Your task to perform on an android device: Search for the new Air Jordan 13 on Nike.com Image 0: 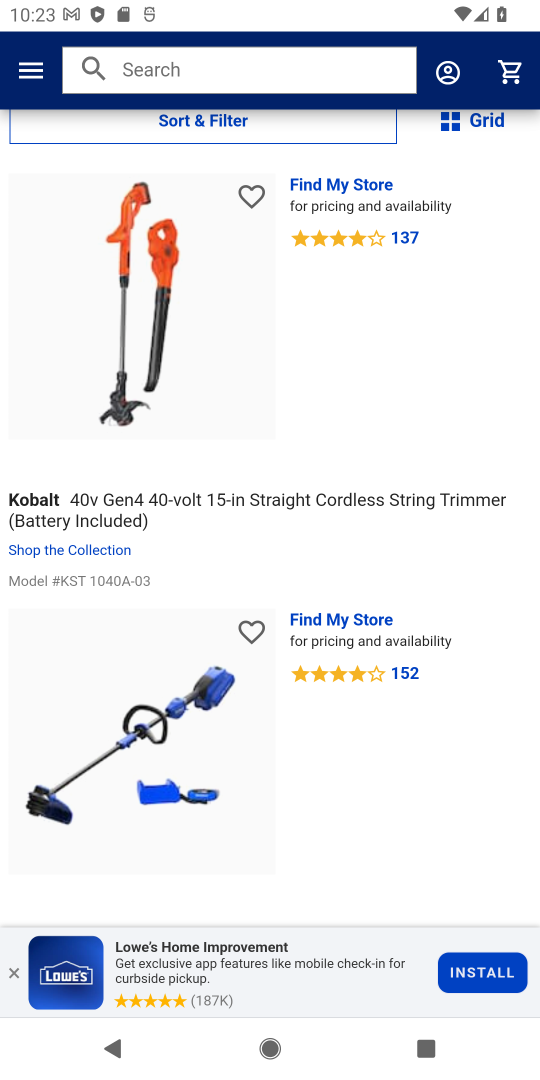
Step 0: press home button
Your task to perform on an android device: Search for the new Air Jordan 13 on Nike.com Image 1: 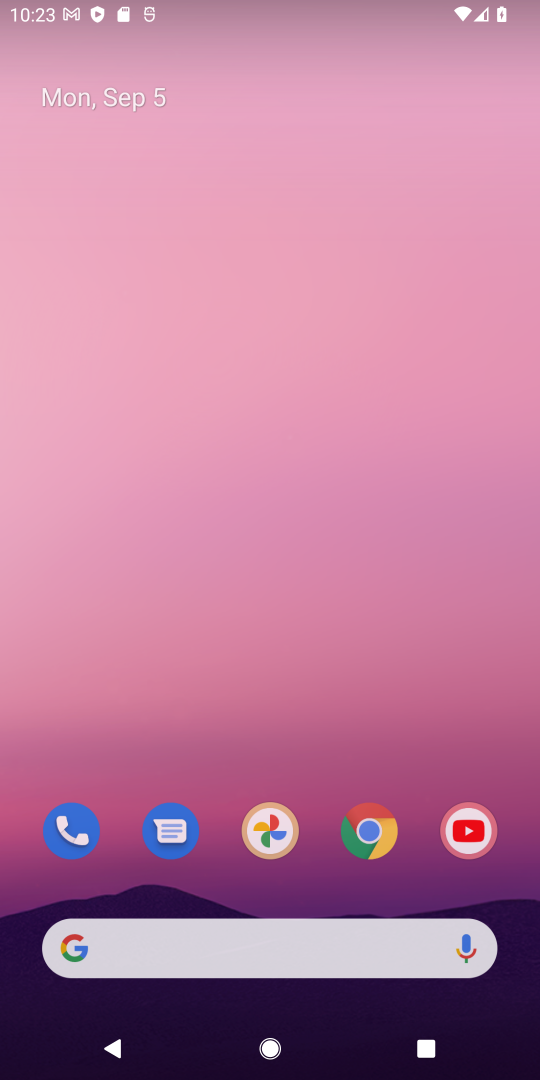
Step 1: drag from (282, 855) to (213, 223)
Your task to perform on an android device: Search for the new Air Jordan 13 on Nike.com Image 2: 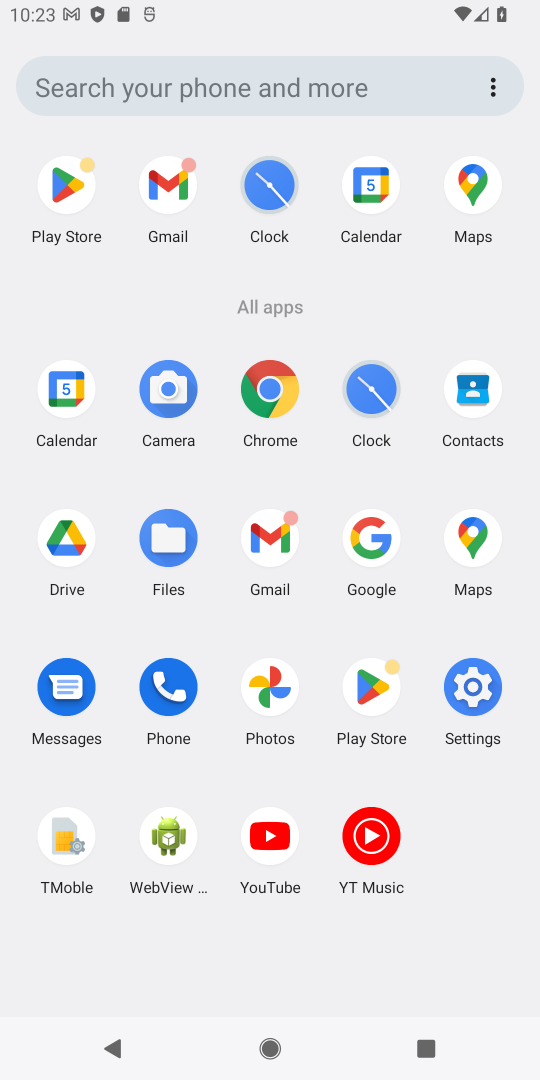
Step 2: click (256, 387)
Your task to perform on an android device: Search for the new Air Jordan 13 on Nike.com Image 3: 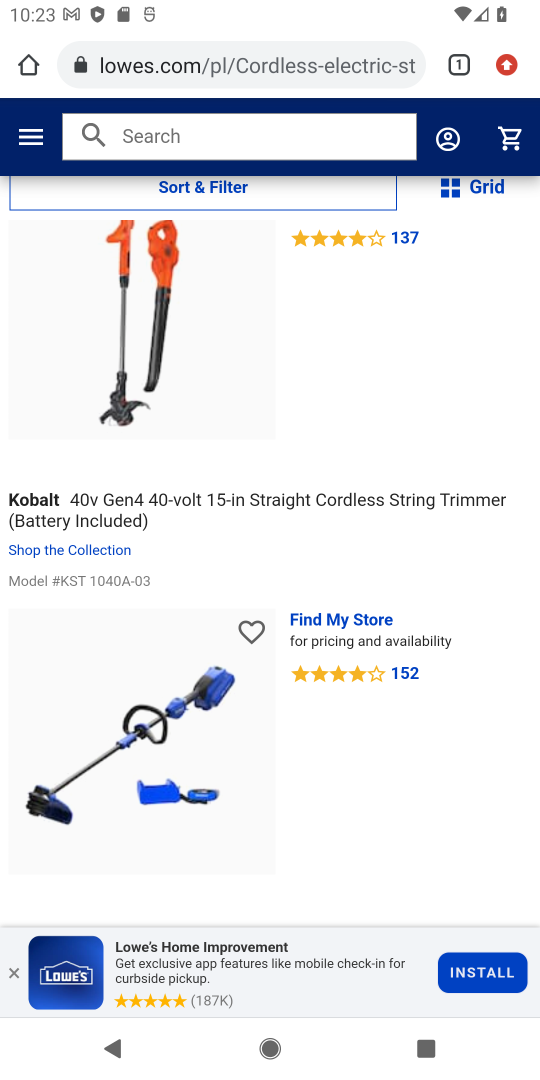
Step 3: click (141, 54)
Your task to perform on an android device: Search for the new Air Jordan 13 on Nike.com Image 4: 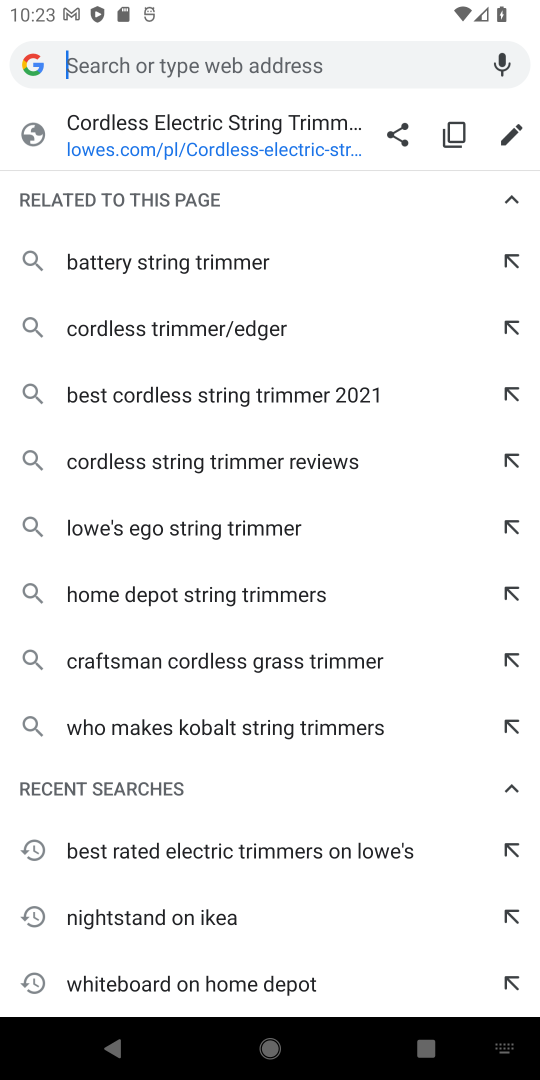
Step 4: type "new Air Jordan 13 on Nike.com"
Your task to perform on an android device: Search for the new Air Jordan 13 on Nike.com Image 5: 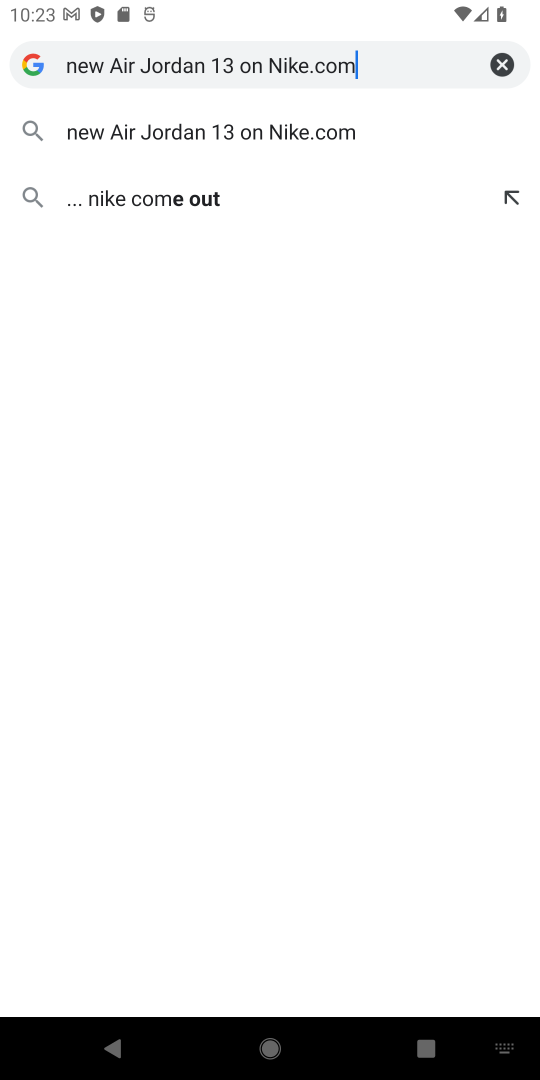
Step 5: click (225, 127)
Your task to perform on an android device: Search for the new Air Jordan 13 on Nike.com Image 6: 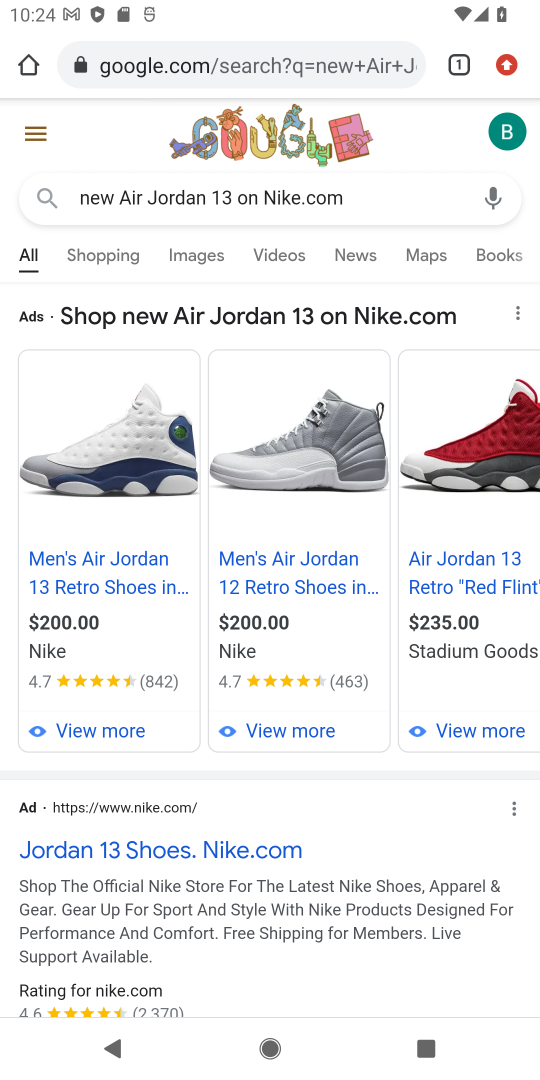
Step 6: click (144, 850)
Your task to perform on an android device: Search for the new Air Jordan 13 on Nike.com Image 7: 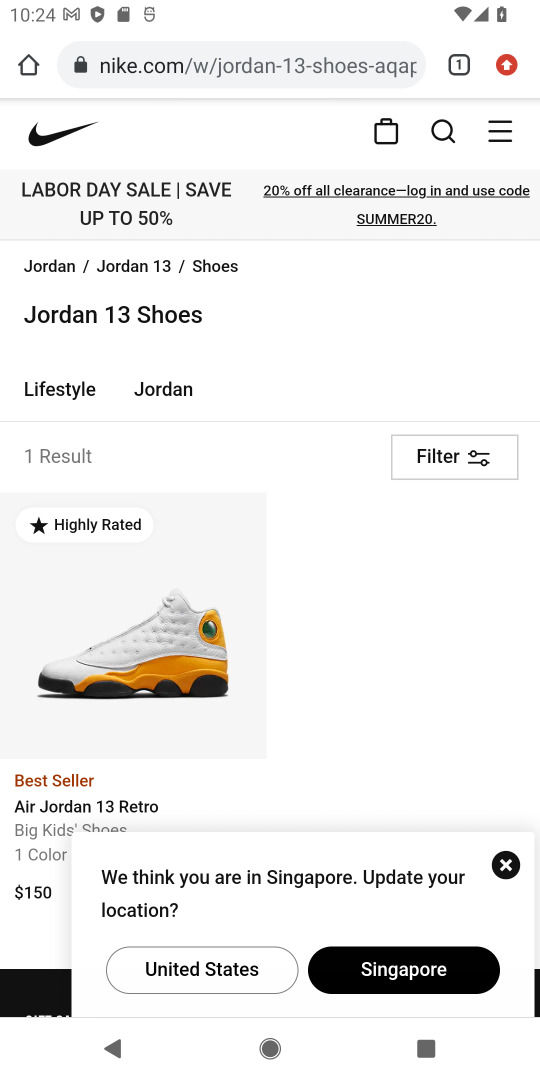
Step 7: task complete